Your task to perform on an android device: allow notifications from all sites in the chrome app Image 0: 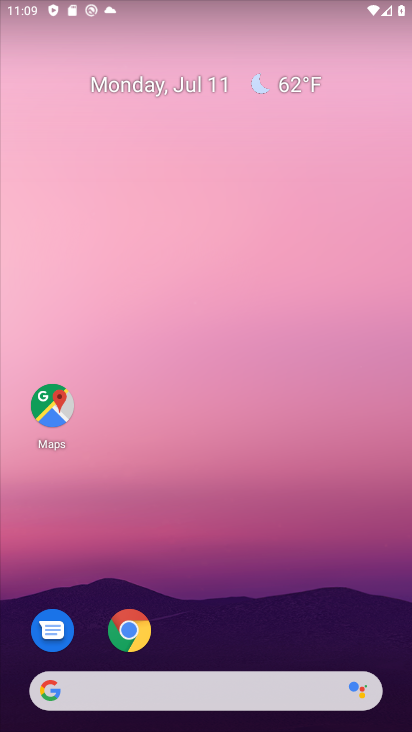
Step 0: drag from (290, 648) to (306, 55)
Your task to perform on an android device: allow notifications from all sites in the chrome app Image 1: 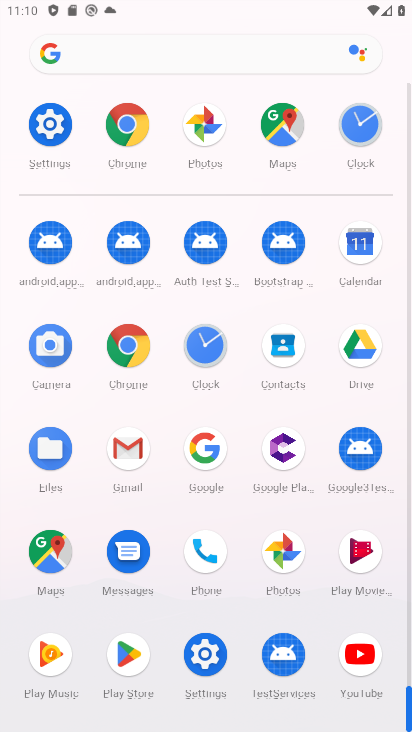
Step 1: click (141, 342)
Your task to perform on an android device: allow notifications from all sites in the chrome app Image 2: 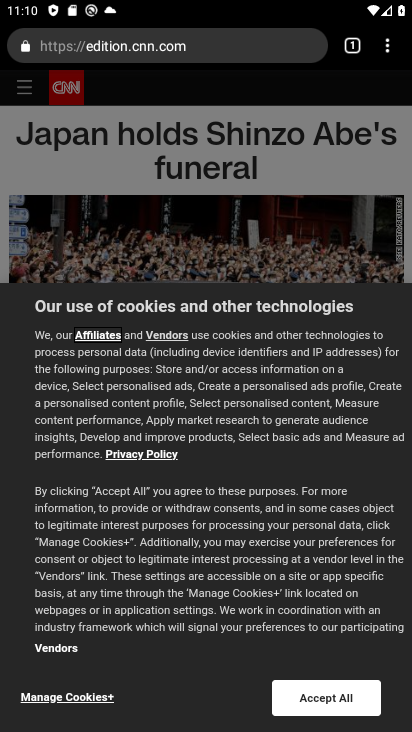
Step 2: drag from (383, 44) to (241, 507)
Your task to perform on an android device: allow notifications from all sites in the chrome app Image 3: 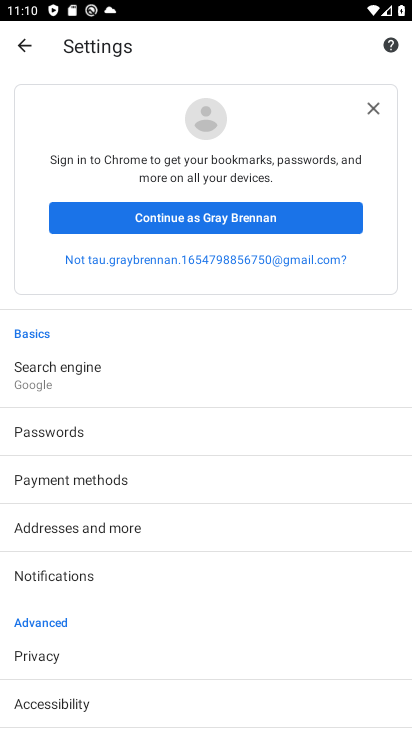
Step 3: drag from (83, 592) to (135, 209)
Your task to perform on an android device: allow notifications from all sites in the chrome app Image 4: 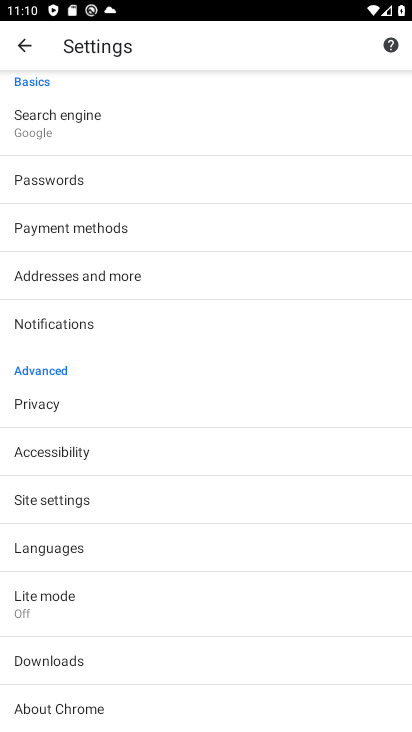
Step 4: click (91, 502)
Your task to perform on an android device: allow notifications from all sites in the chrome app Image 5: 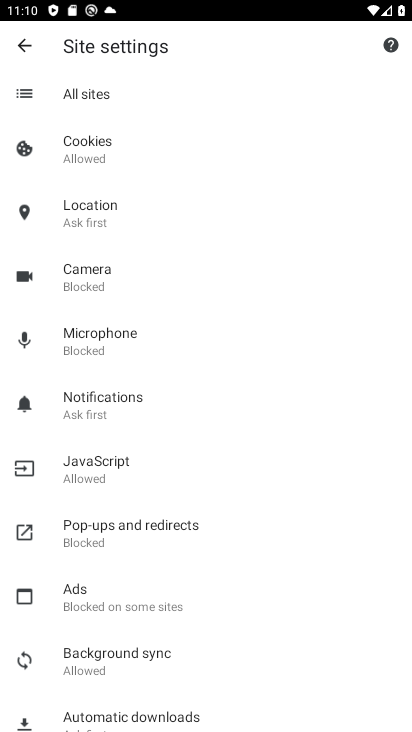
Step 5: click (128, 413)
Your task to perform on an android device: allow notifications from all sites in the chrome app Image 6: 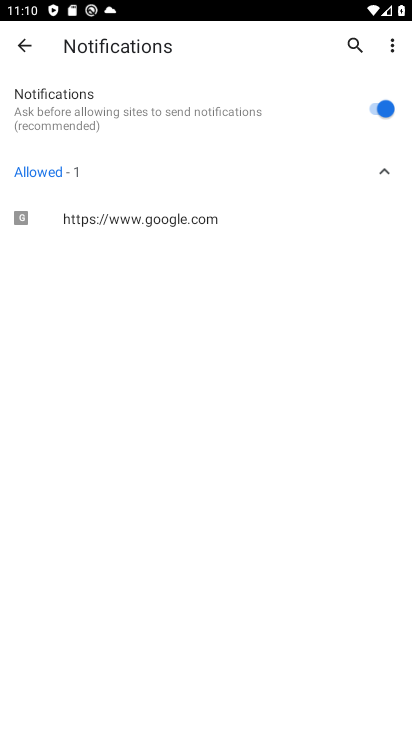
Step 6: task complete